Your task to perform on an android device: turn on bluetooth scan Image 0: 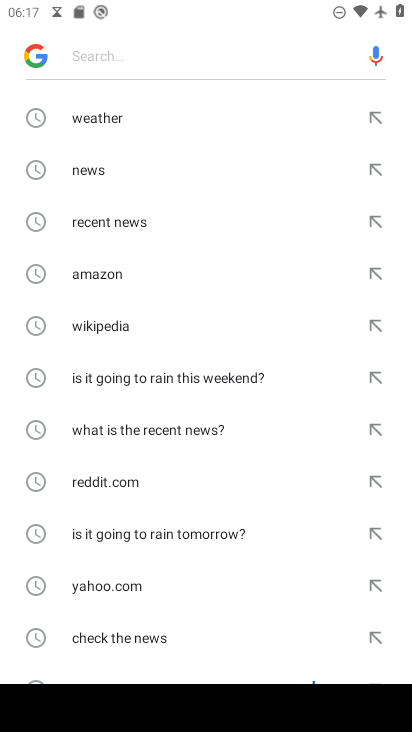
Step 0: press home button
Your task to perform on an android device: turn on bluetooth scan Image 1: 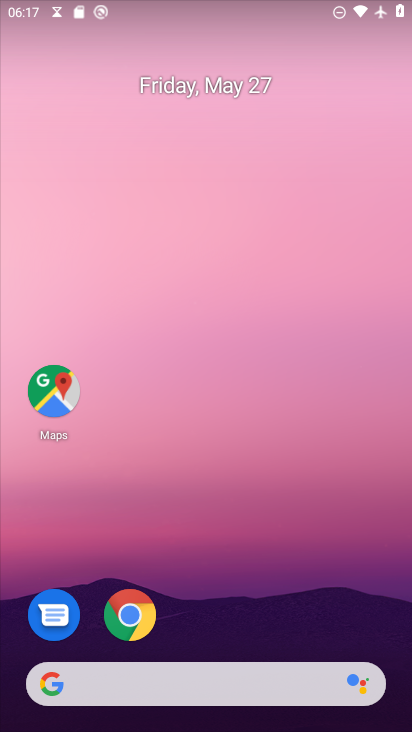
Step 1: drag from (306, 468) to (206, 108)
Your task to perform on an android device: turn on bluetooth scan Image 2: 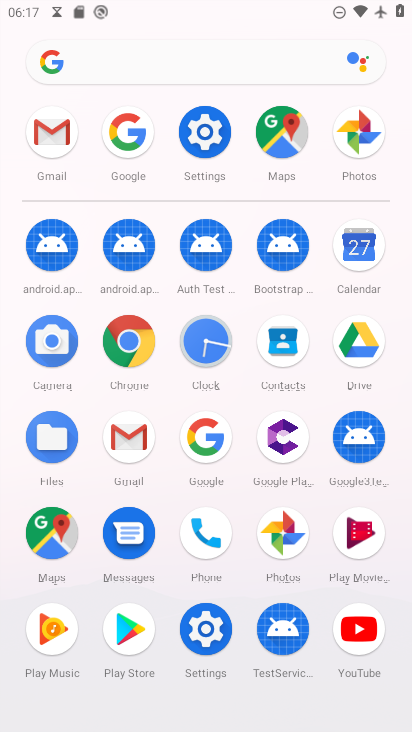
Step 2: click (219, 635)
Your task to perform on an android device: turn on bluetooth scan Image 3: 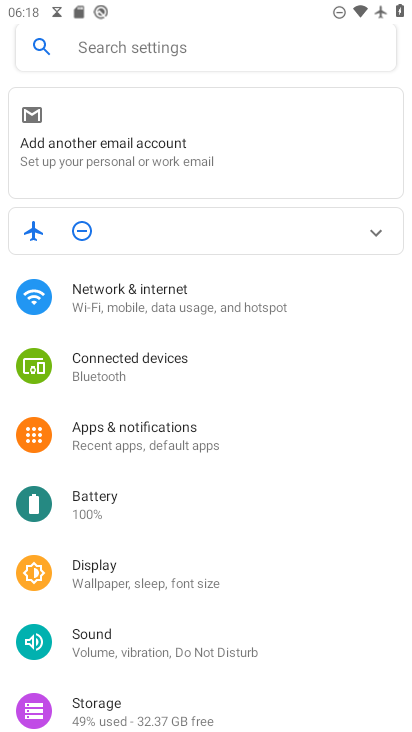
Step 3: drag from (248, 673) to (235, 256)
Your task to perform on an android device: turn on bluetooth scan Image 4: 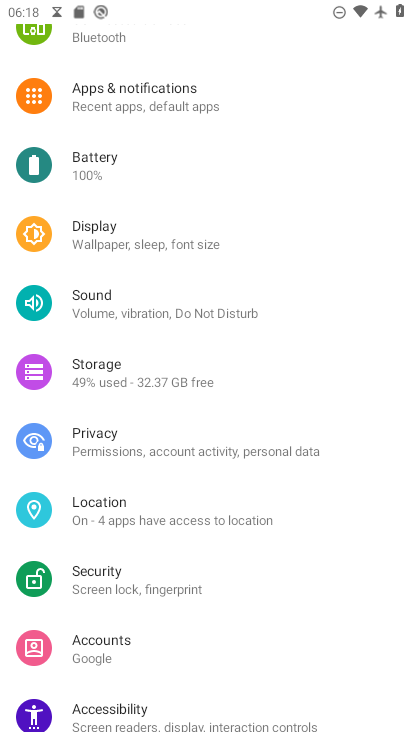
Step 4: click (158, 516)
Your task to perform on an android device: turn on bluetooth scan Image 5: 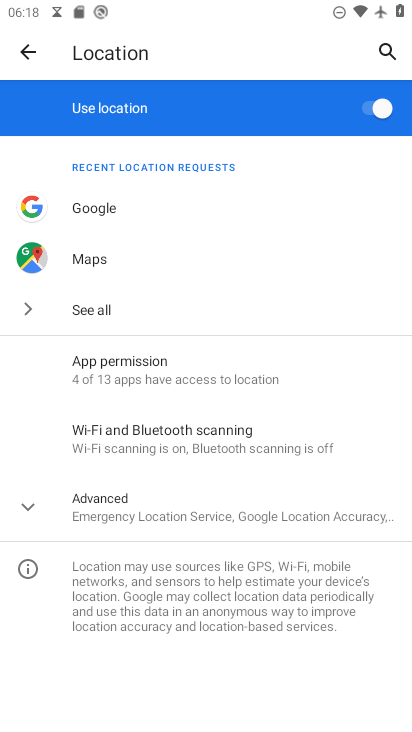
Step 5: click (216, 446)
Your task to perform on an android device: turn on bluetooth scan Image 6: 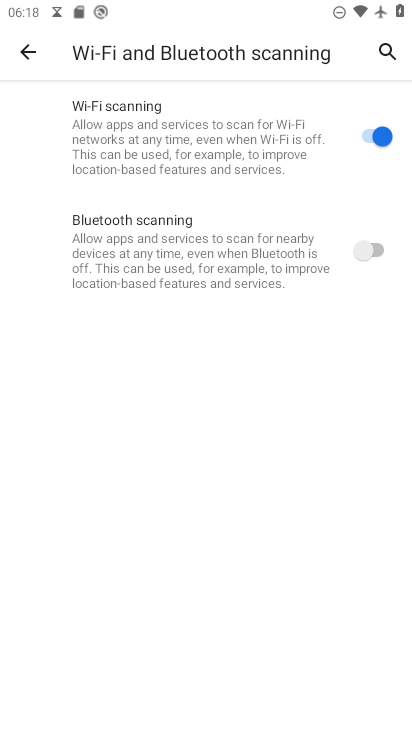
Step 6: click (371, 245)
Your task to perform on an android device: turn on bluetooth scan Image 7: 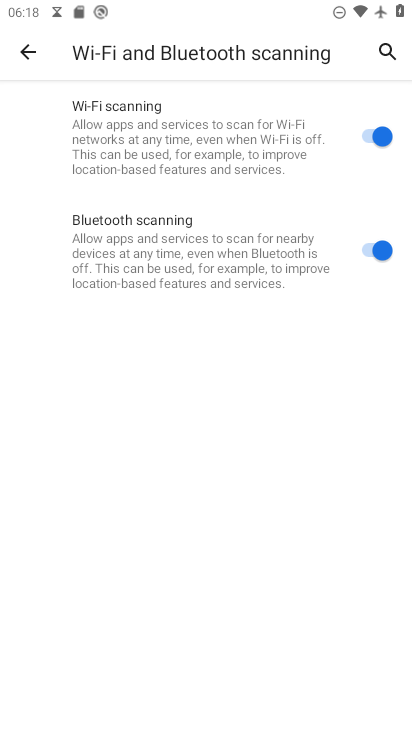
Step 7: task complete